Your task to perform on an android device: uninstall "Cash App" Image 0: 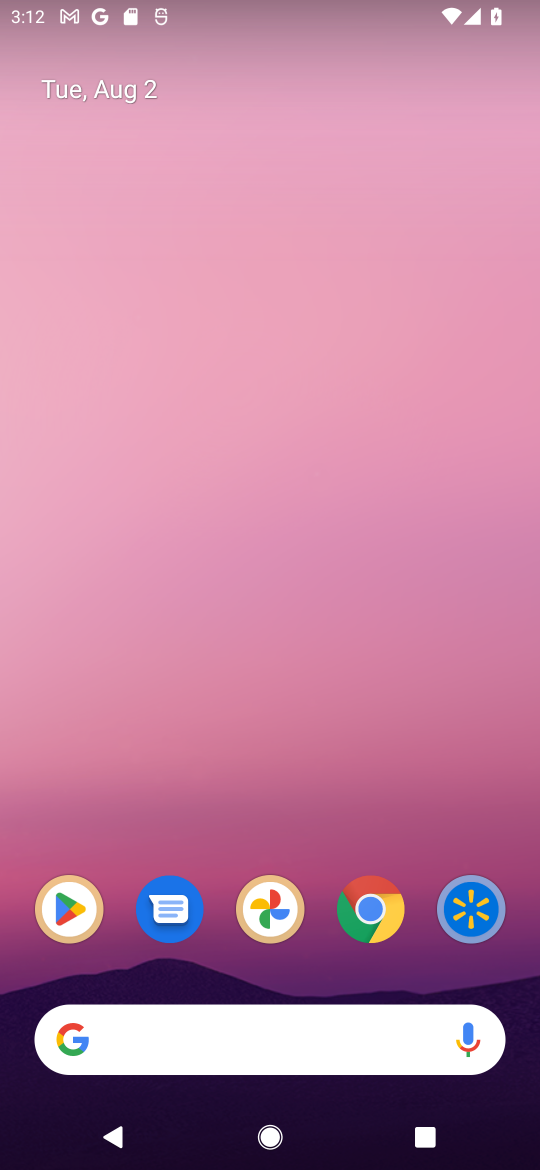
Step 0: drag from (231, 750) to (342, 122)
Your task to perform on an android device: uninstall "Cash App" Image 1: 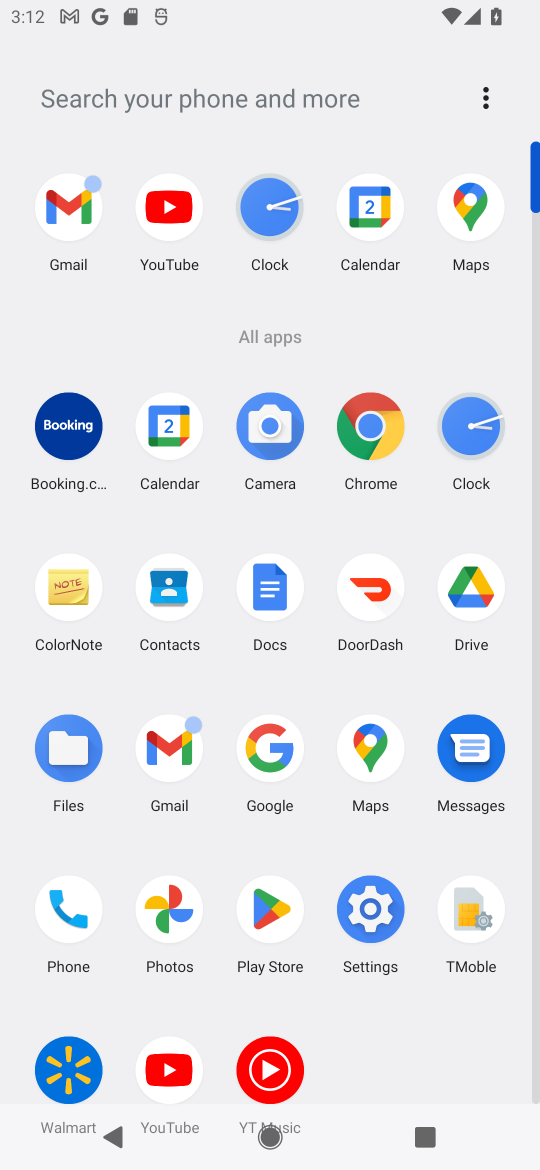
Step 1: click (293, 905)
Your task to perform on an android device: uninstall "Cash App" Image 2: 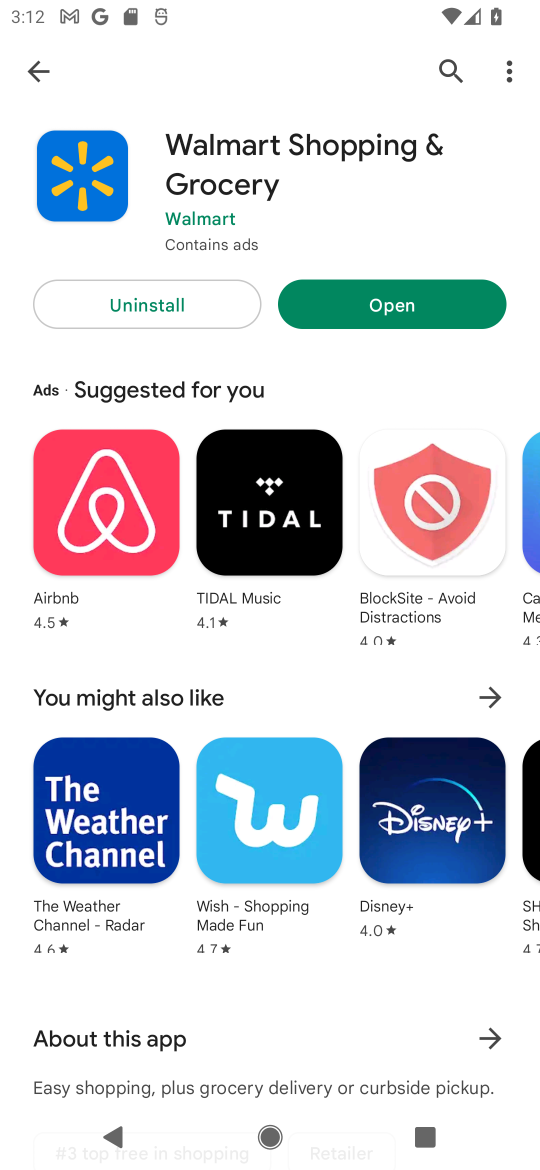
Step 2: drag from (316, 201) to (365, 1039)
Your task to perform on an android device: uninstall "Cash App" Image 3: 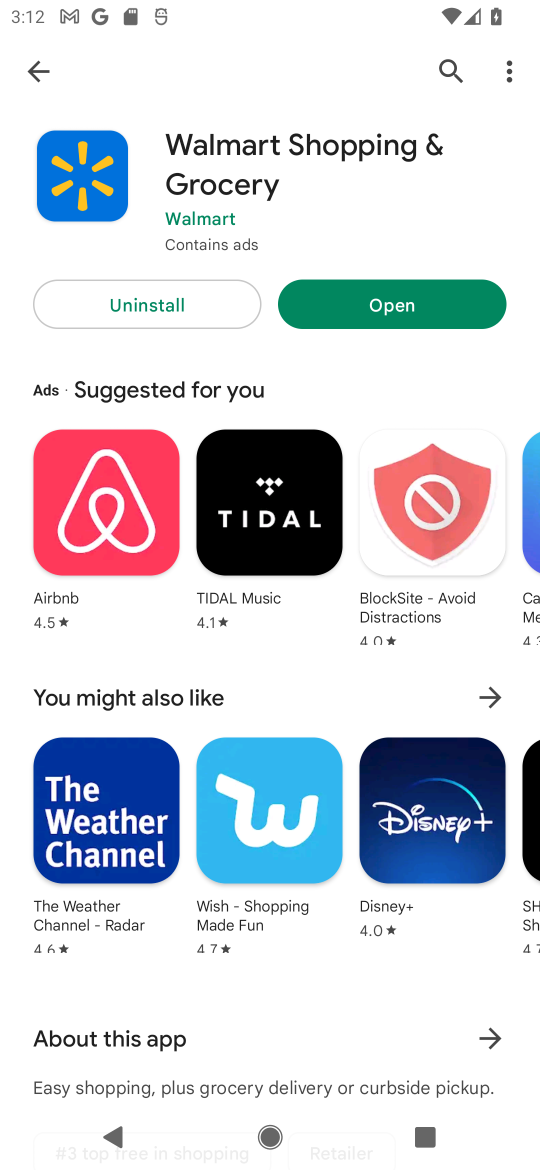
Step 3: drag from (448, 702) to (414, 316)
Your task to perform on an android device: uninstall "Cash App" Image 4: 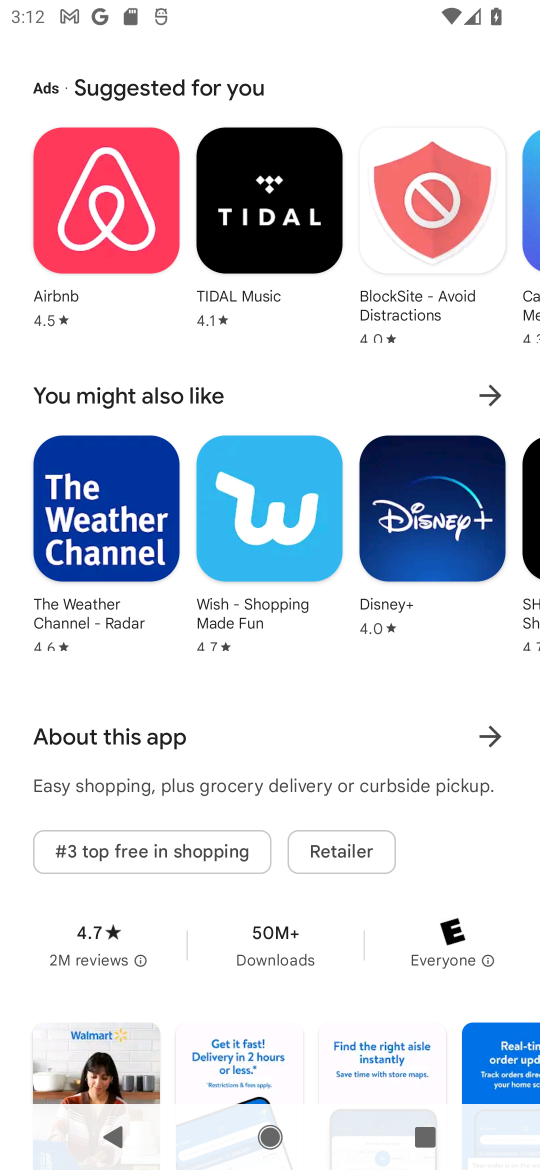
Step 4: drag from (347, 555) to (426, 732)
Your task to perform on an android device: uninstall "Cash App" Image 5: 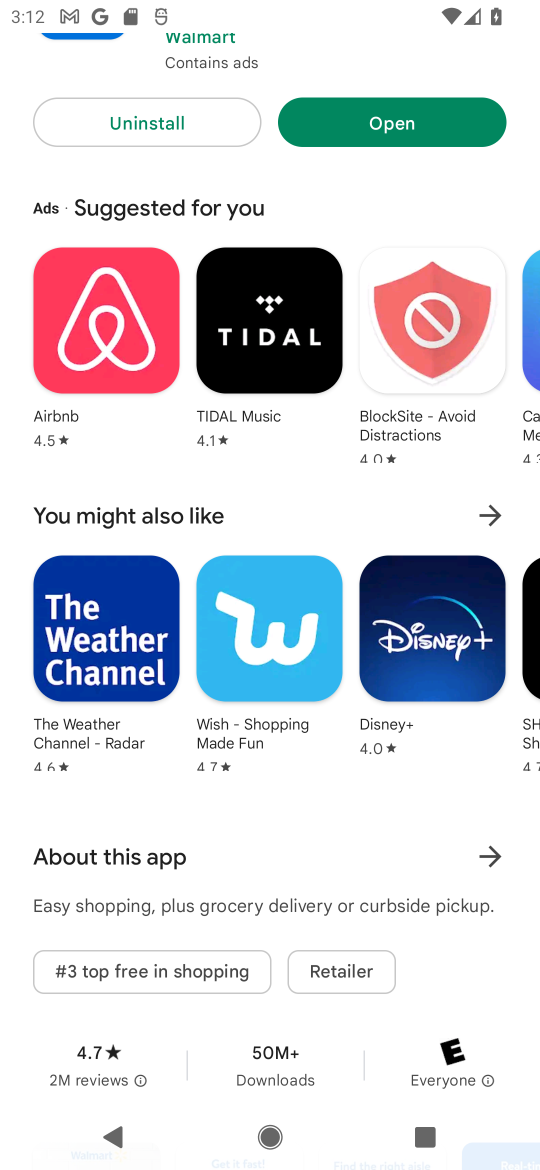
Step 5: drag from (277, 83) to (439, 1137)
Your task to perform on an android device: uninstall "Cash App" Image 6: 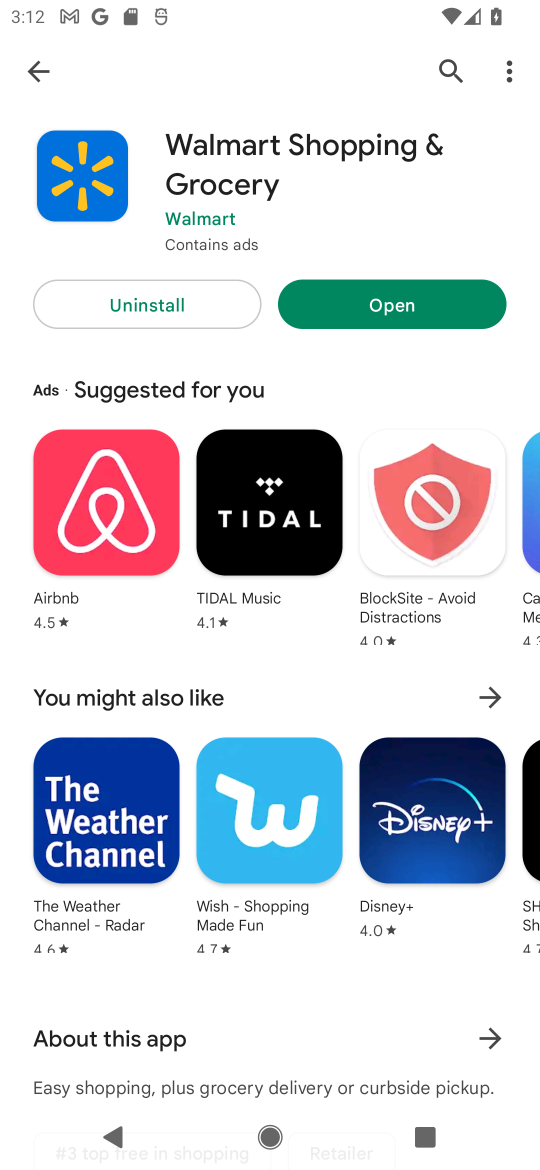
Step 6: click (457, 62)
Your task to perform on an android device: uninstall "Cash App" Image 7: 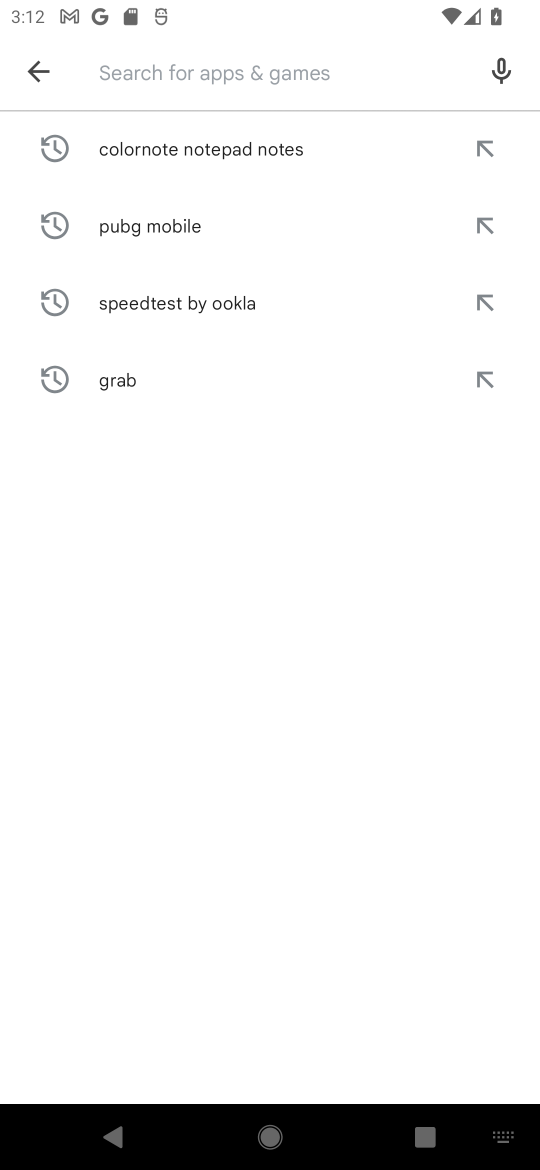
Step 7: type "Cash App"
Your task to perform on an android device: uninstall "Cash App" Image 8: 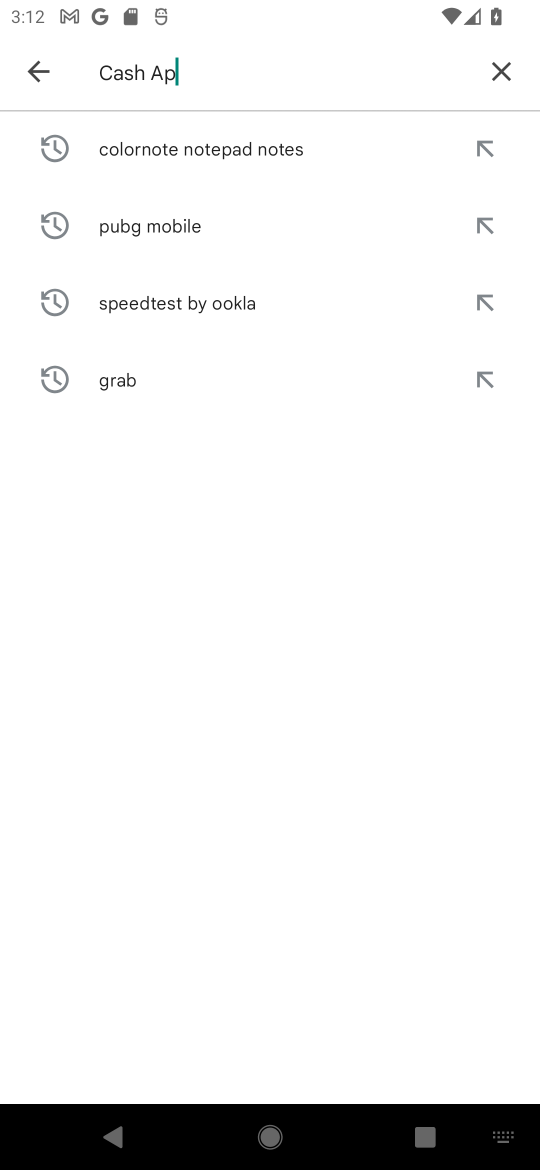
Step 8: type ""
Your task to perform on an android device: uninstall "Cash App" Image 9: 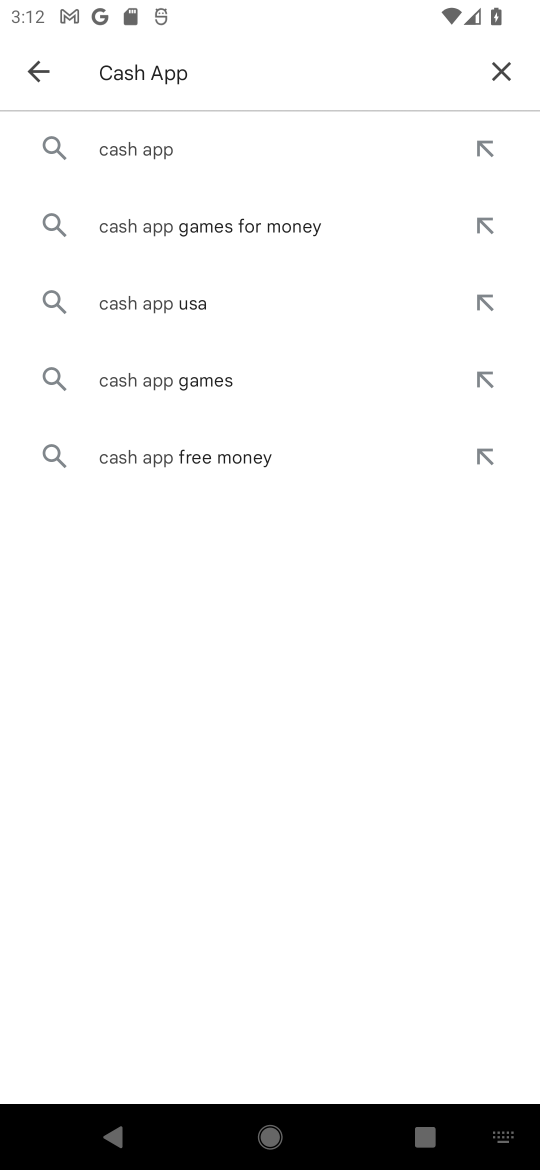
Step 9: click (213, 164)
Your task to perform on an android device: uninstall "Cash App" Image 10: 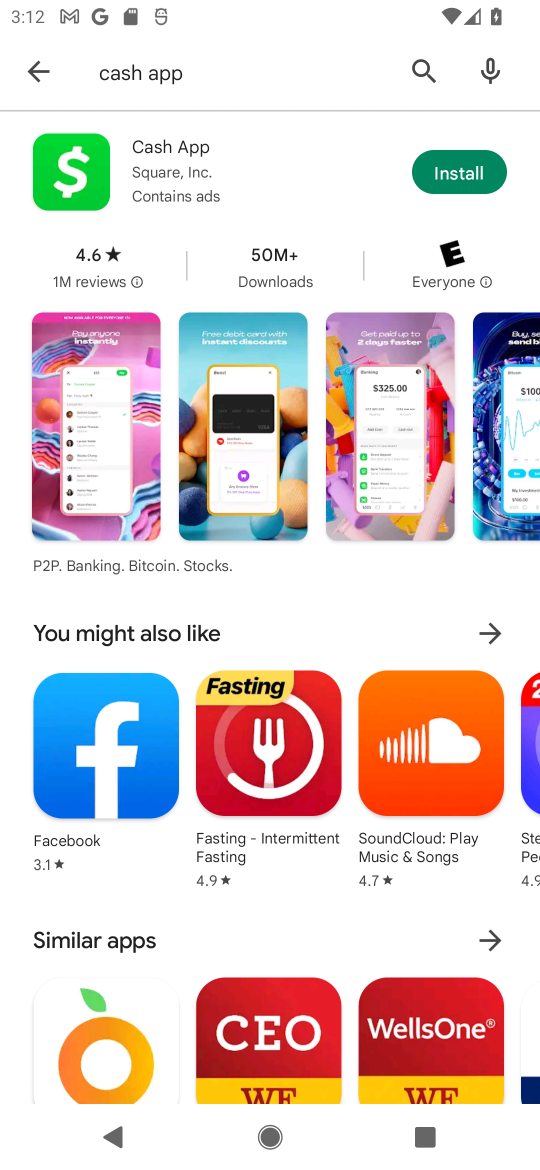
Step 10: click (191, 166)
Your task to perform on an android device: uninstall "Cash App" Image 11: 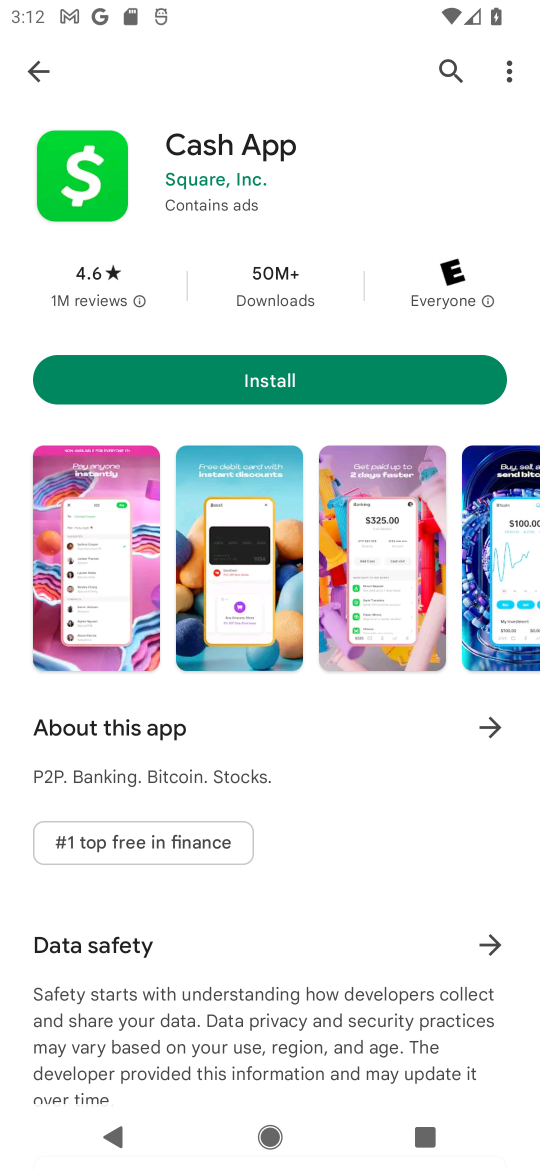
Step 11: task complete